Your task to perform on an android device: show emergency info Image 0: 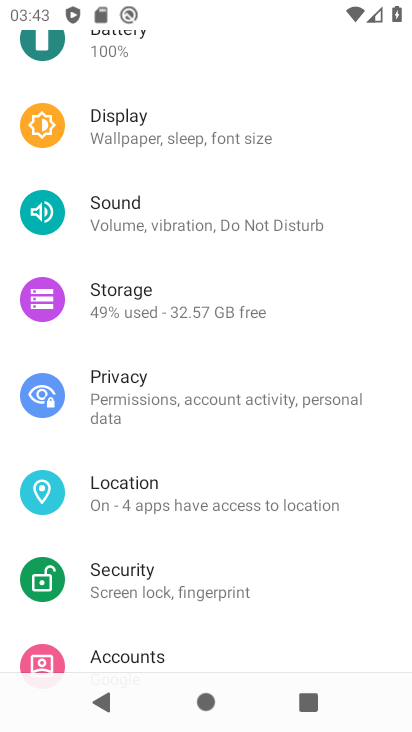
Step 0: press home button
Your task to perform on an android device: show emergency info Image 1: 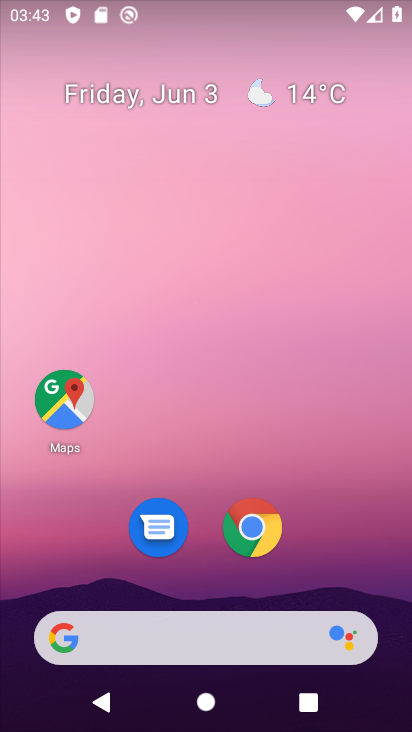
Step 1: drag from (327, 551) to (264, 169)
Your task to perform on an android device: show emergency info Image 2: 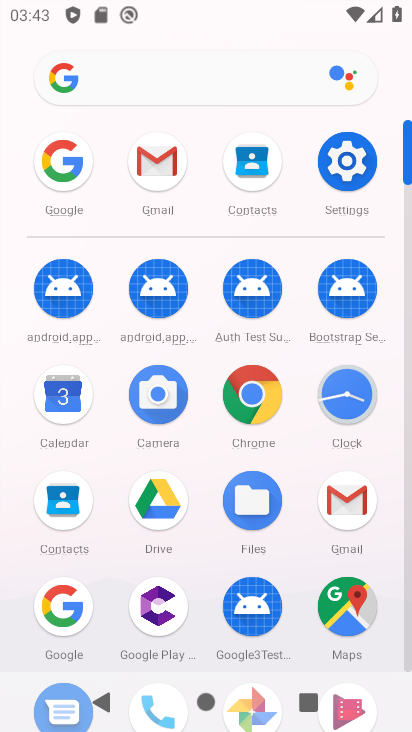
Step 2: click (350, 163)
Your task to perform on an android device: show emergency info Image 3: 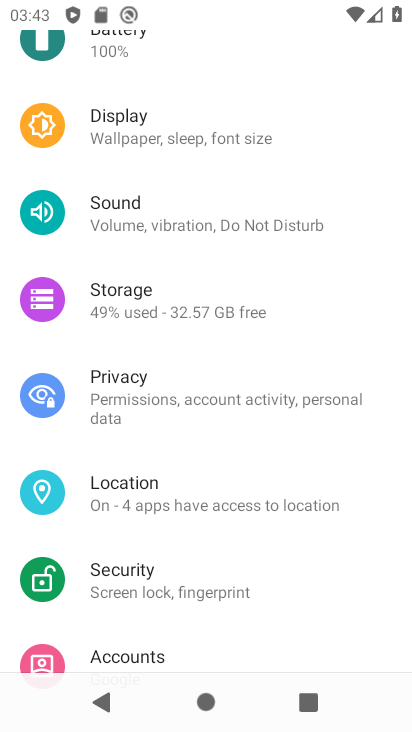
Step 3: drag from (228, 131) to (261, 381)
Your task to perform on an android device: show emergency info Image 4: 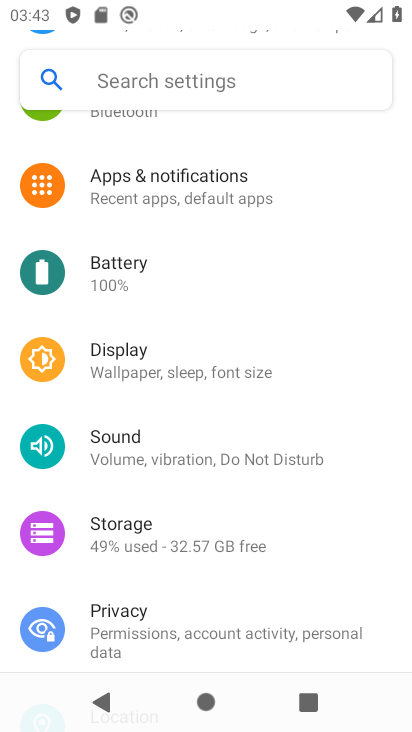
Step 4: drag from (185, 443) to (250, 336)
Your task to perform on an android device: show emergency info Image 5: 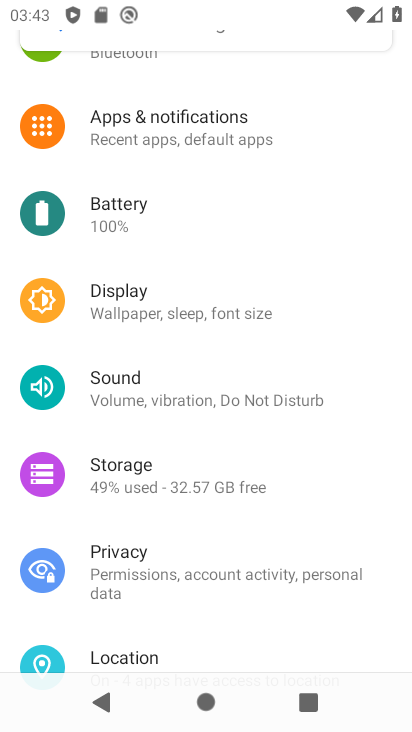
Step 5: drag from (147, 440) to (239, 333)
Your task to perform on an android device: show emergency info Image 6: 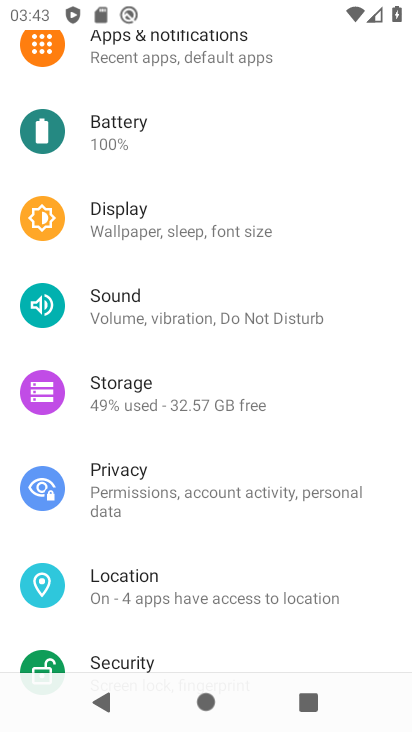
Step 6: drag from (122, 443) to (216, 324)
Your task to perform on an android device: show emergency info Image 7: 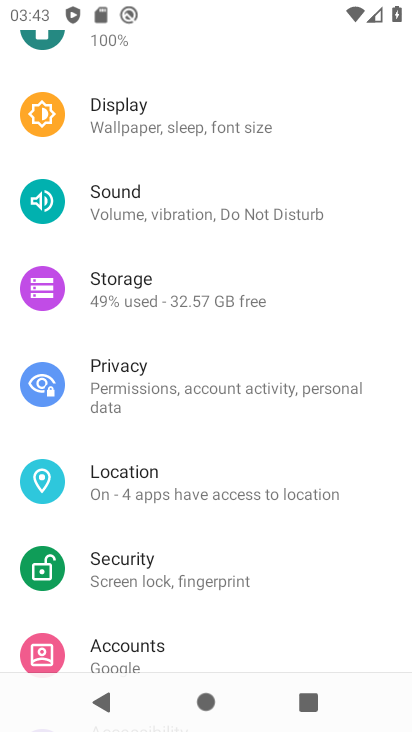
Step 7: drag from (144, 437) to (252, 302)
Your task to perform on an android device: show emergency info Image 8: 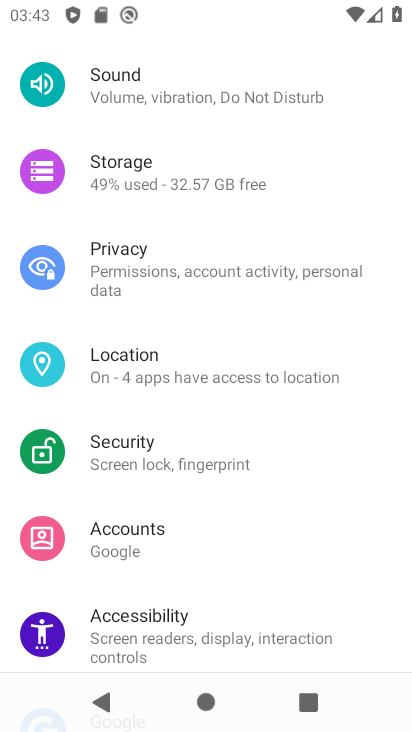
Step 8: drag from (136, 496) to (195, 390)
Your task to perform on an android device: show emergency info Image 9: 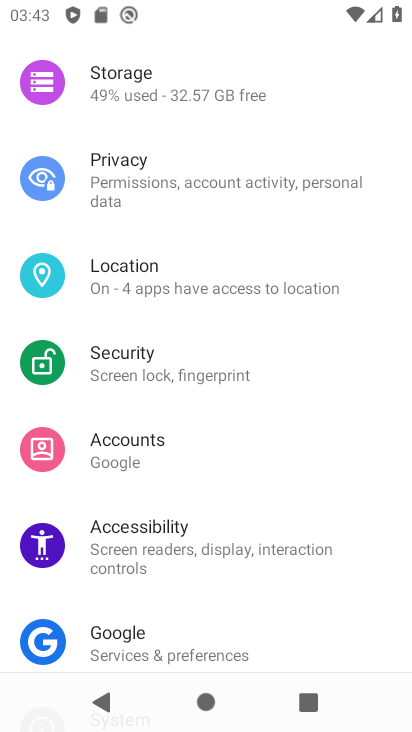
Step 9: drag from (128, 411) to (211, 312)
Your task to perform on an android device: show emergency info Image 10: 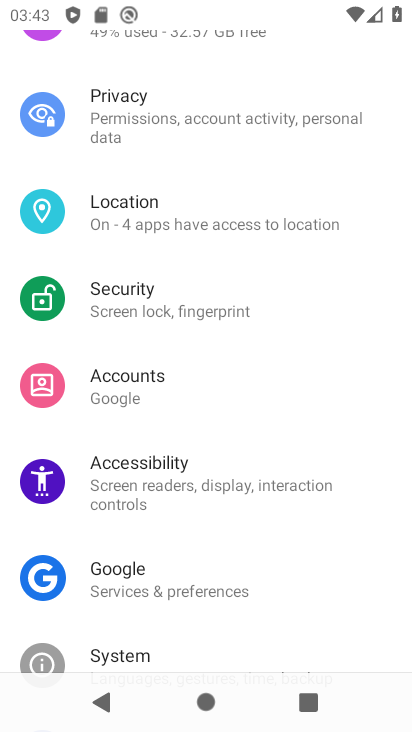
Step 10: drag from (115, 434) to (224, 299)
Your task to perform on an android device: show emergency info Image 11: 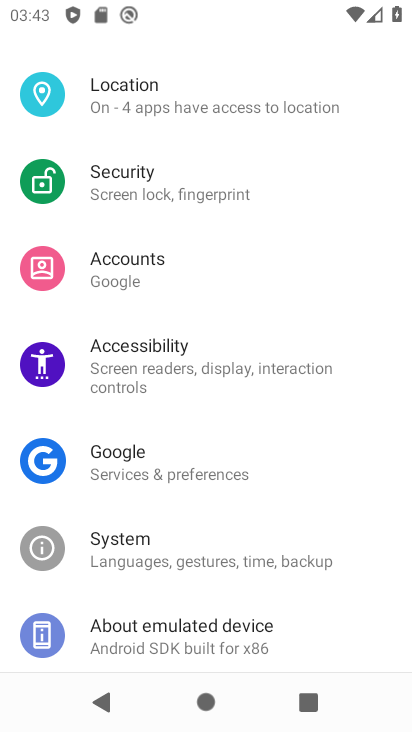
Step 11: drag from (117, 417) to (209, 289)
Your task to perform on an android device: show emergency info Image 12: 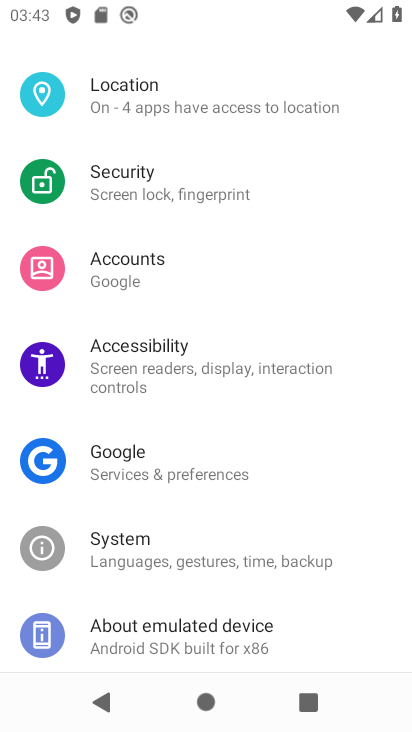
Step 12: click (137, 621)
Your task to perform on an android device: show emergency info Image 13: 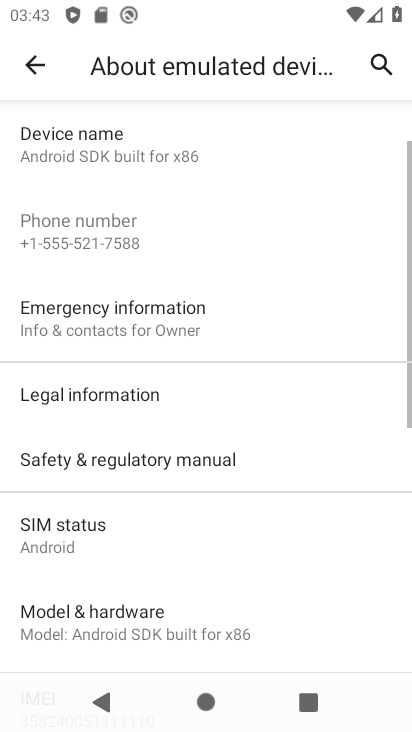
Step 13: click (172, 324)
Your task to perform on an android device: show emergency info Image 14: 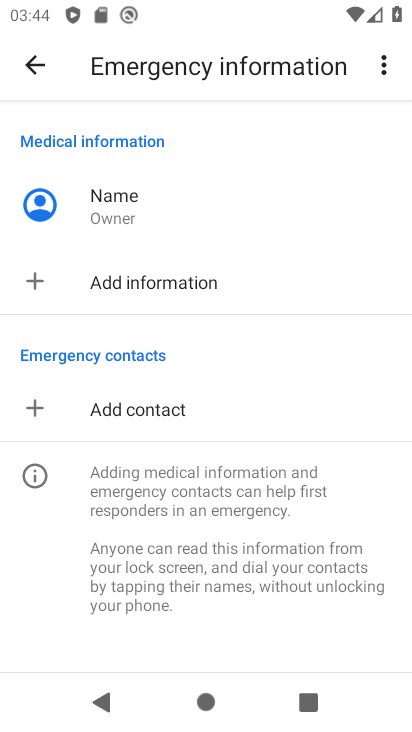
Step 14: task complete